Your task to perform on an android device: turn off airplane mode Image 0: 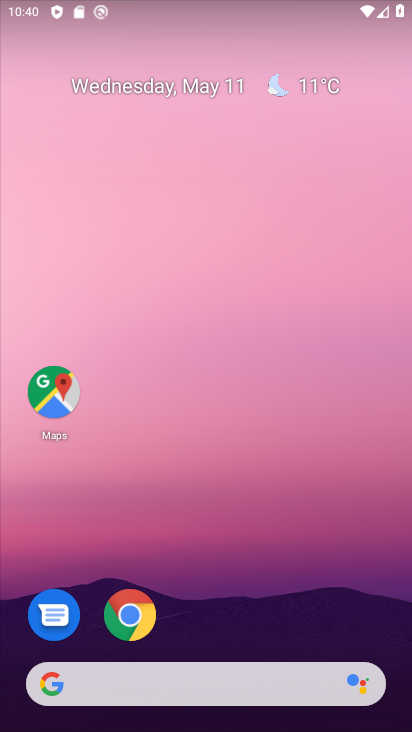
Step 0: drag from (242, 5) to (214, 471)
Your task to perform on an android device: turn off airplane mode Image 1: 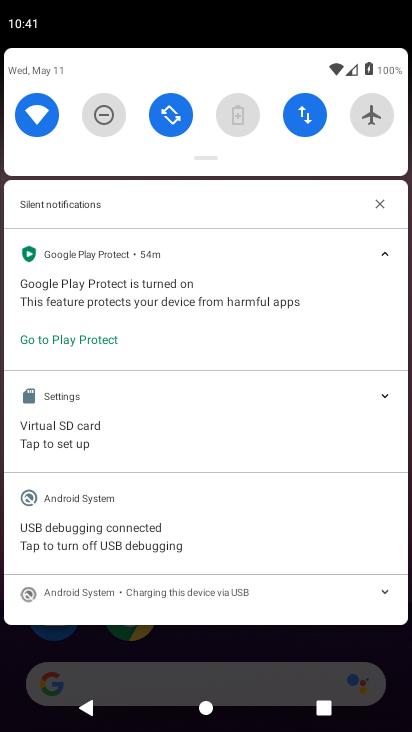
Step 1: task complete